Your task to perform on an android device: turn off javascript in the chrome app Image 0: 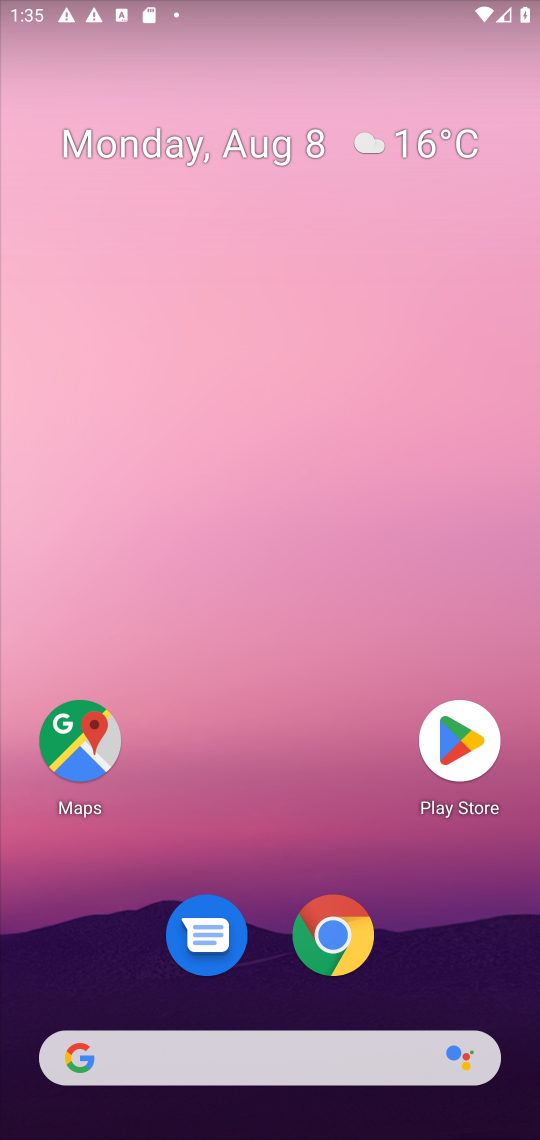
Step 0: drag from (121, 1081) to (417, 1)
Your task to perform on an android device: turn off javascript in the chrome app Image 1: 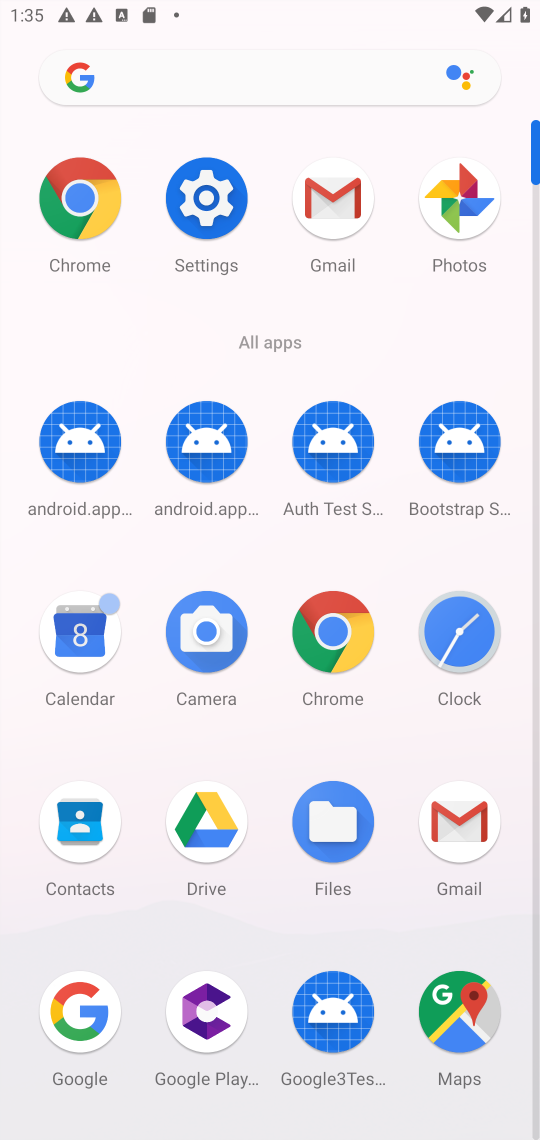
Step 1: click (320, 661)
Your task to perform on an android device: turn off javascript in the chrome app Image 2: 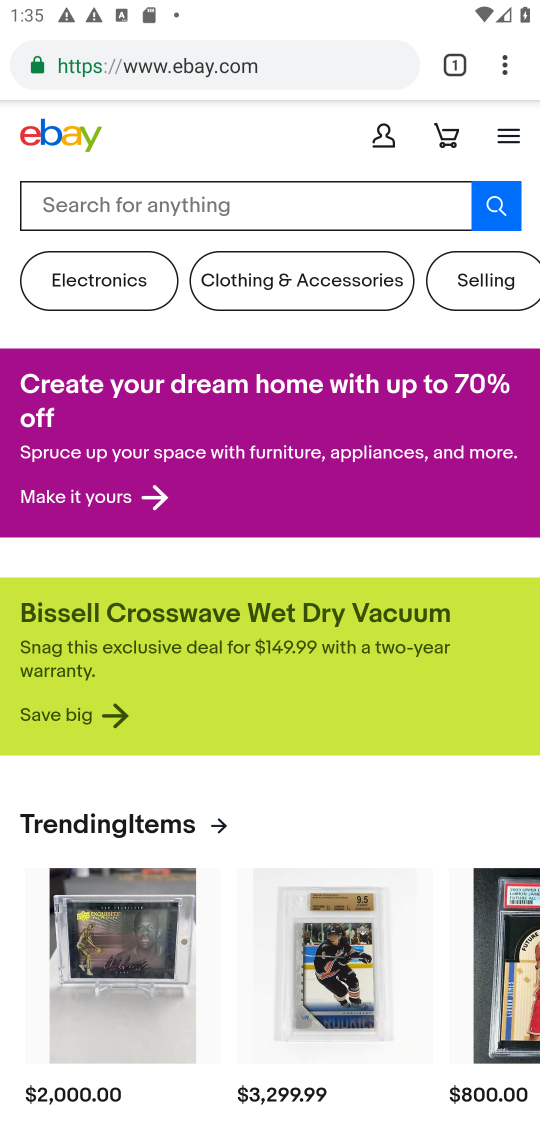
Step 2: click (510, 57)
Your task to perform on an android device: turn off javascript in the chrome app Image 3: 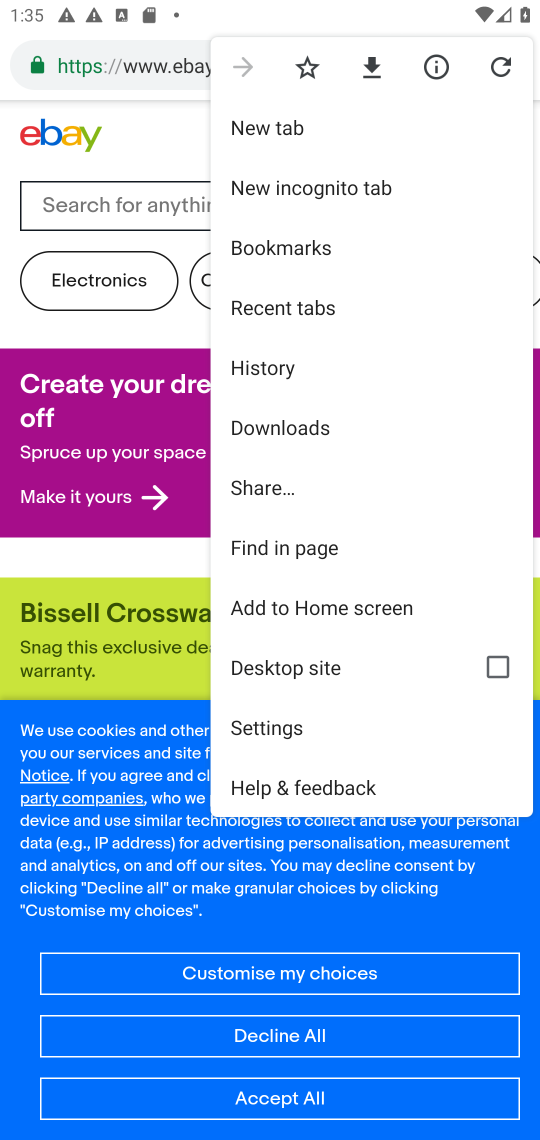
Step 3: click (424, 565)
Your task to perform on an android device: turn off javascript in the chrome app Image 4: 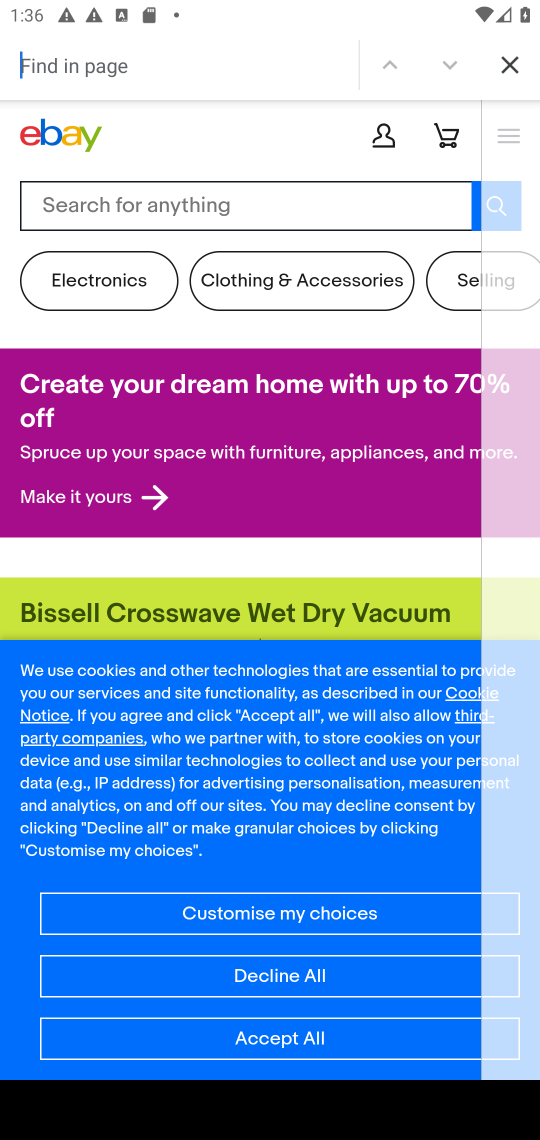
Step 4: click (509, 60)
Your task to perform on an android device: turn off javascript in the chrome app Image 5: 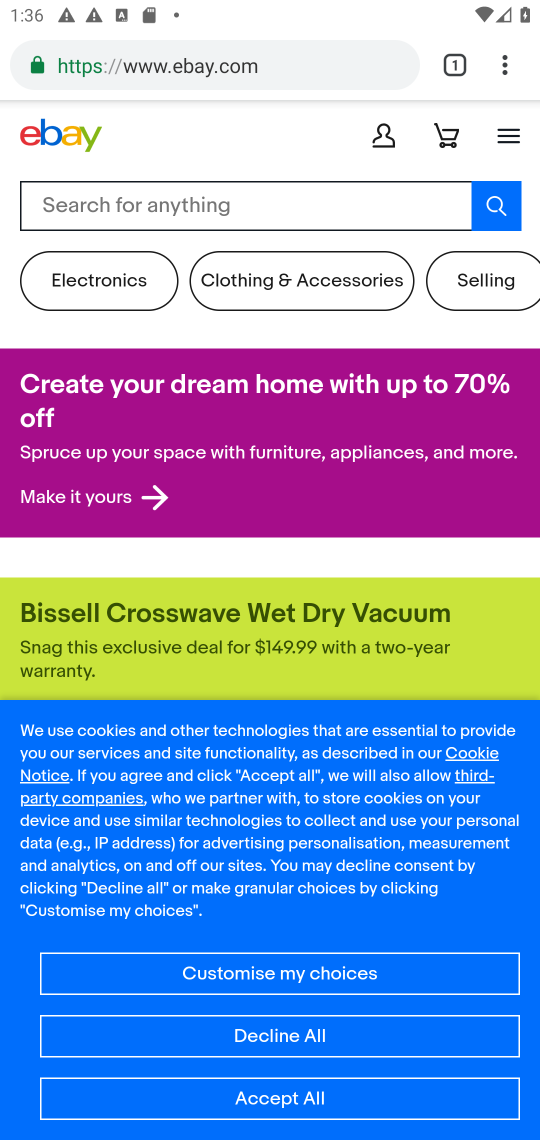
Step 5: click (510, 57)
Your task to perform on an android device: turn off javascript in the chrome app Image 6: 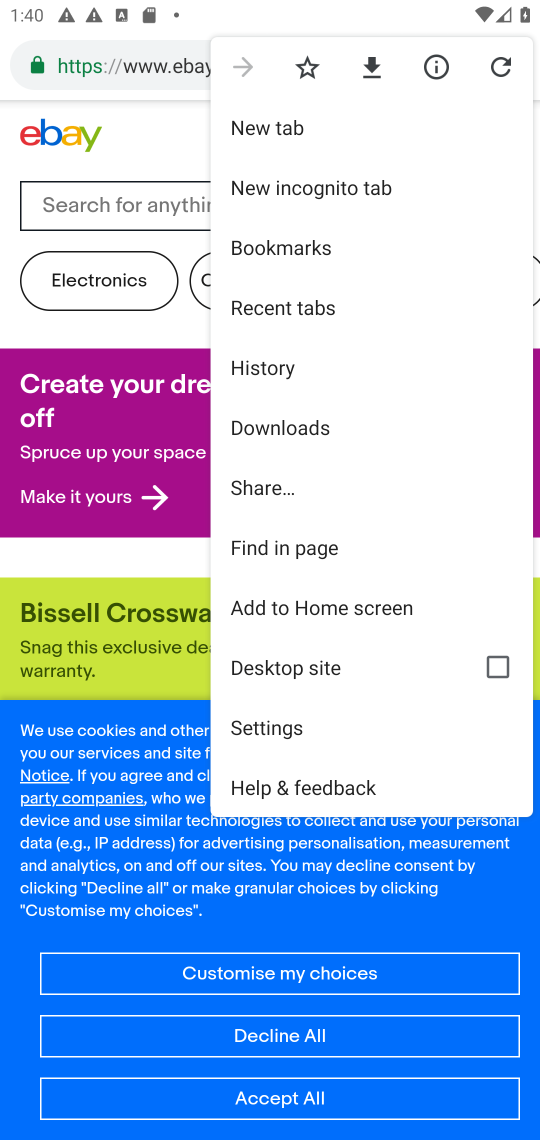
Step 6: click (303, 717)
Your task to perform on an android device: turn off javascript in the chrome app Image 7: 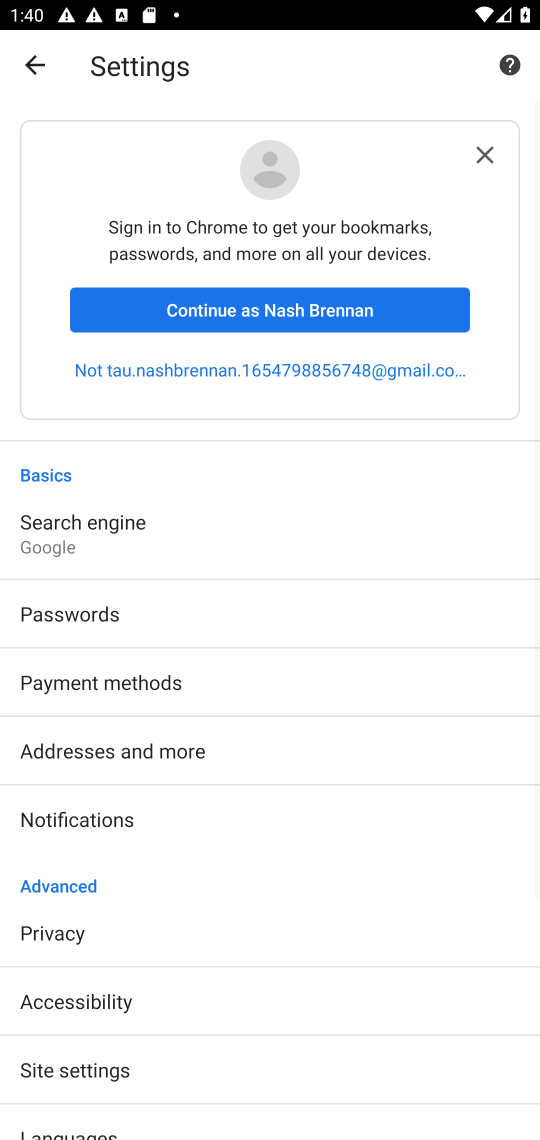
Step 7: drag from (188, 973) to (190, 398)
Your task to perform on an android device: turn off javascript in the chrome app Image 8: 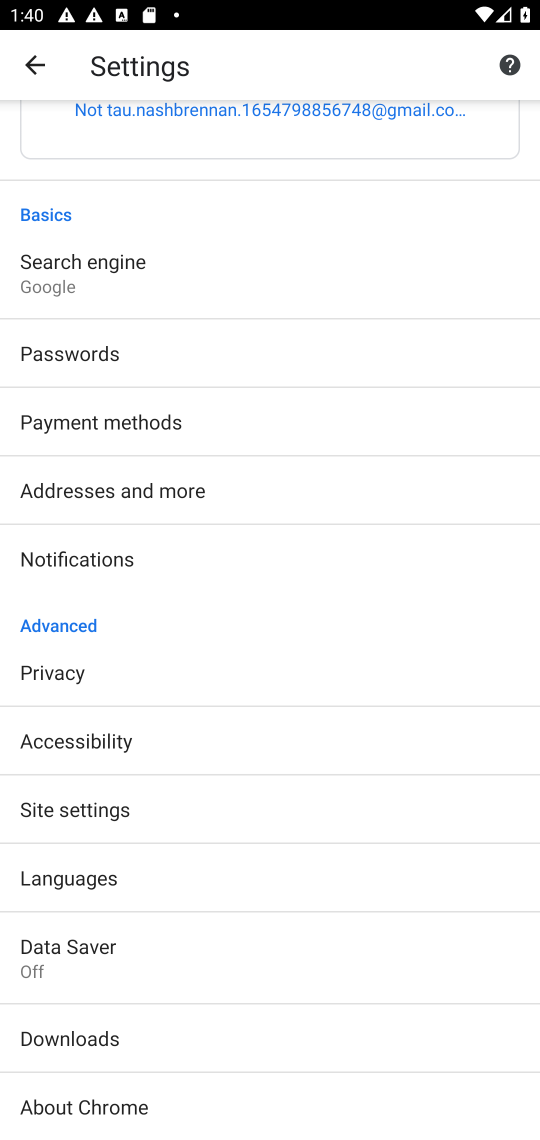
Step 8: click (109, 804)
Your task to perform on an android device: turn off javascript in the chrome app Image 9: 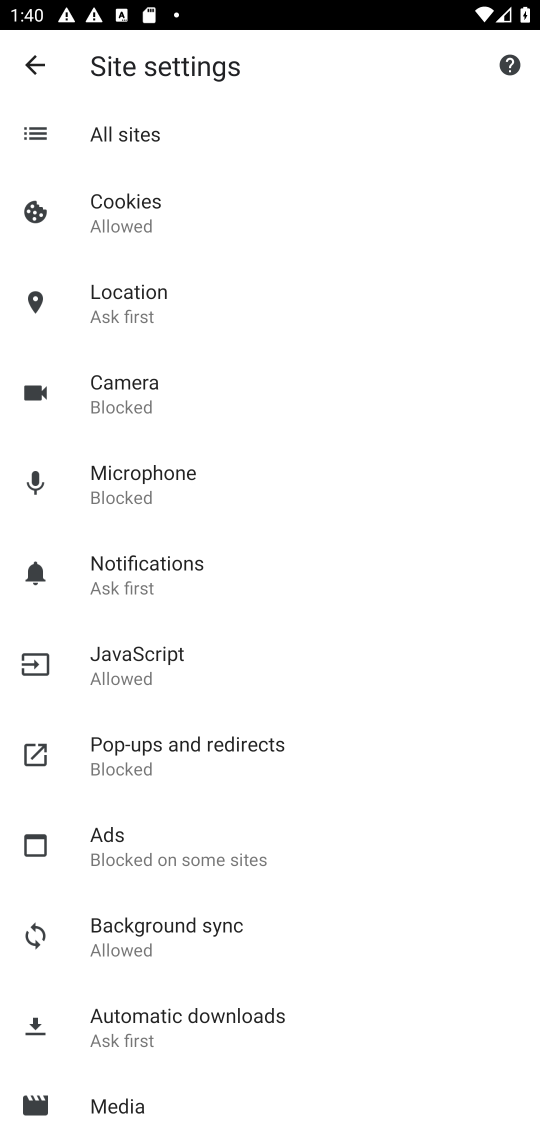
Step 9: click (151, 688)
Your task to perform on an android device: turn off javascript in the chrome app Image 10: 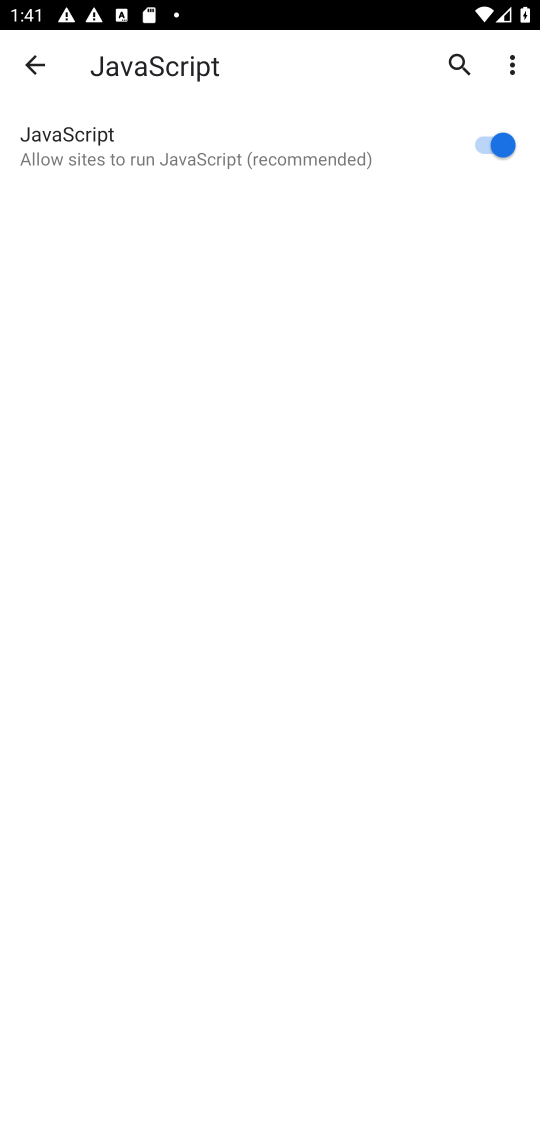
Step 10: press home button
Your task to perform on an android device: turn off javascript in the chrome app Image 11: 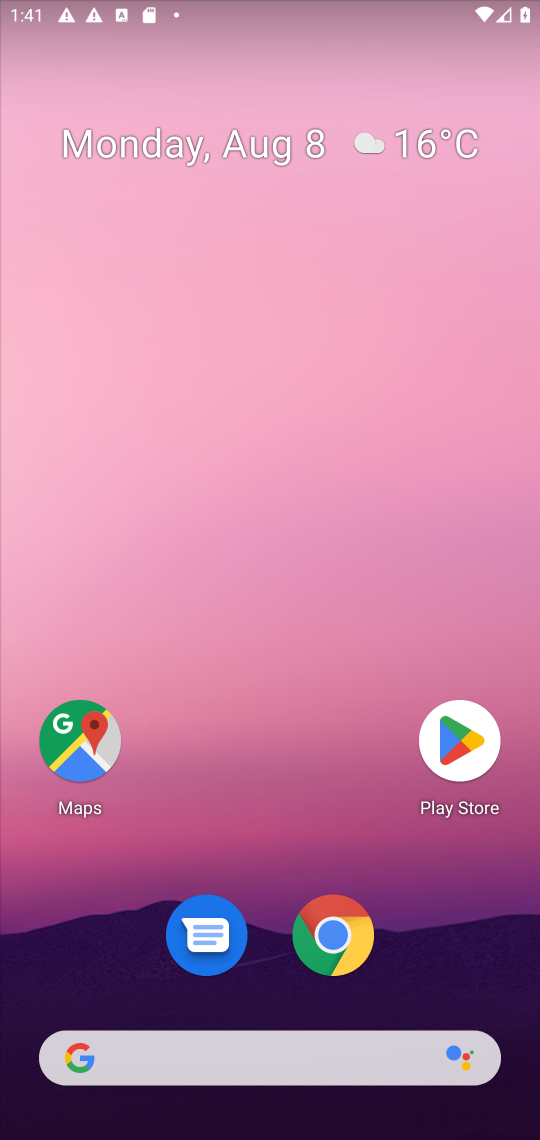
Step 11: drag from (321, 1074) to (316, 10)
Your task to perform on an android device: turn off javascript in the chrome app Image 12: 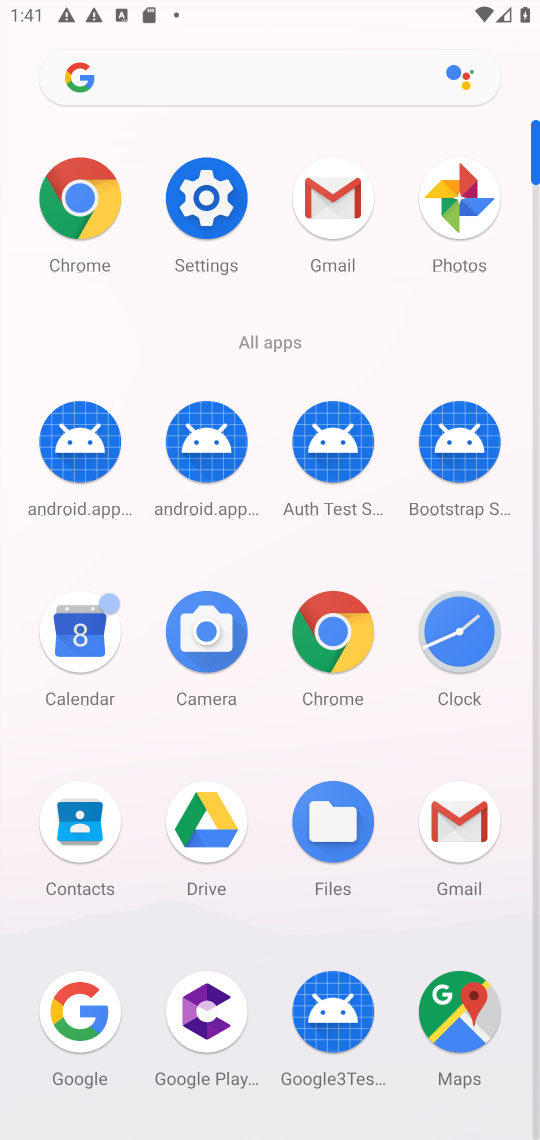
Step 12: click (331, 617)
Your task to perform on an android device: turn off javascript in the chrome app Image 13: 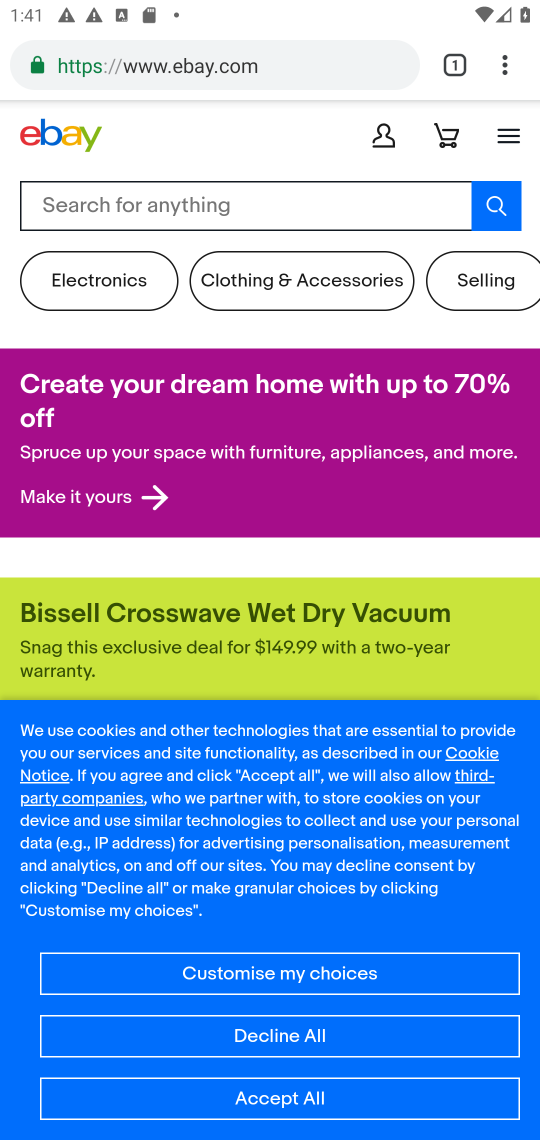
Step 13: click (497, 53)
Your task to perform on an android device: turn off javascript in the chrome app Image 14: 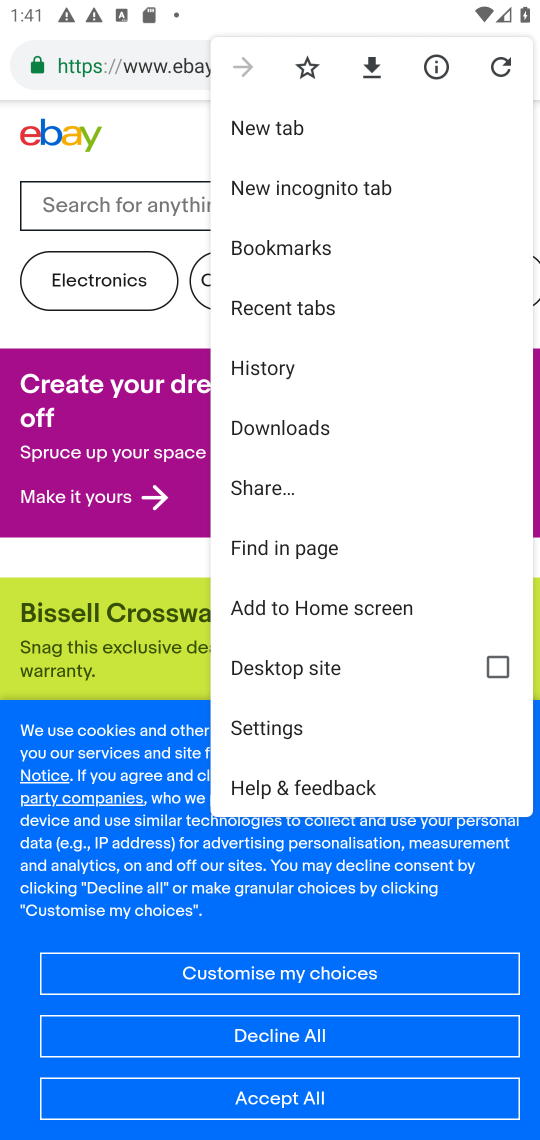
Step 14: click (315, 718)
Your task to perform on an android device: turn off javascript in the chrome app Image 15: 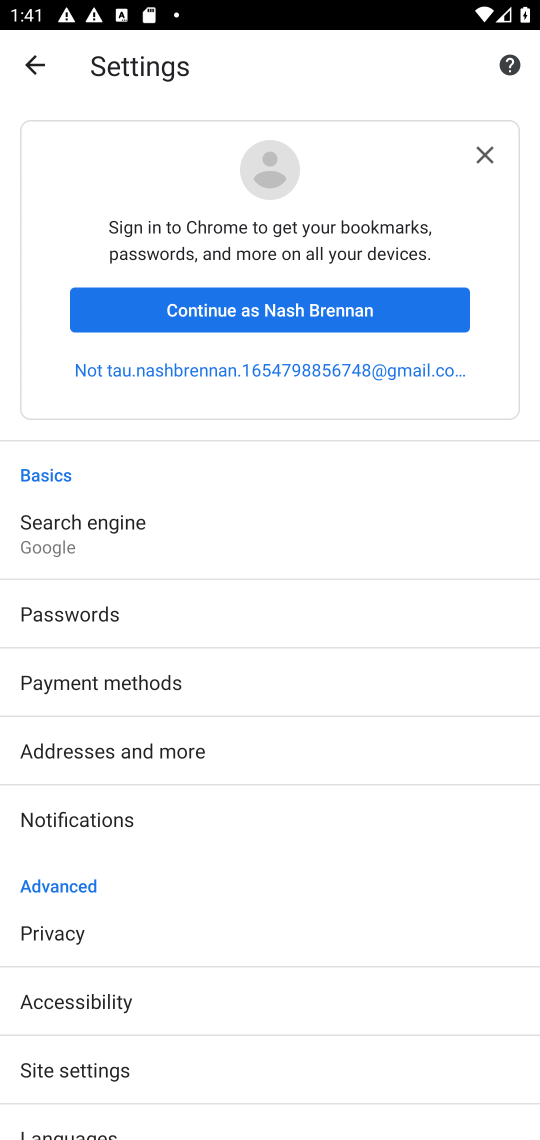
Step 15: click (133, 1066)
Your task to perform on an android device: turn off javascript in the chrome app Image 16: 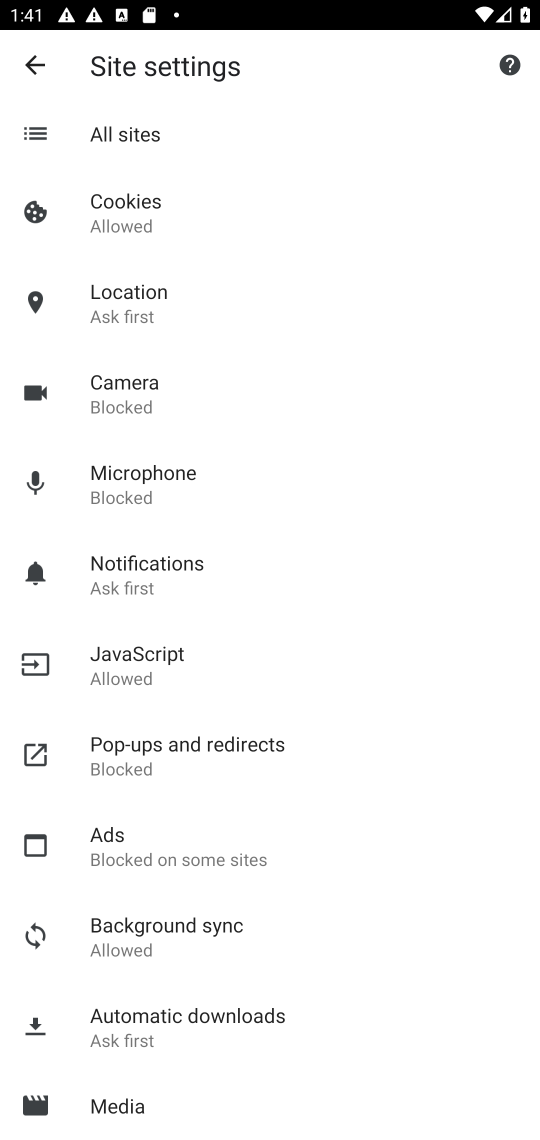
Step 16: click (160, 673)
Your task to perform on an android device: turn off javascript in the chrome app Image 17: 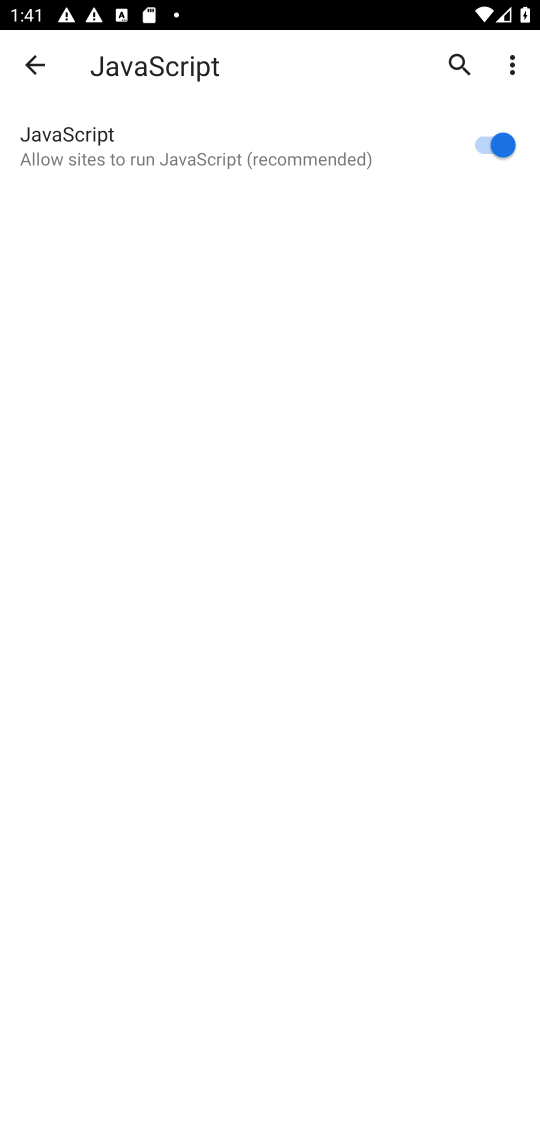
Step 17: click (482, 144)
Your task to perform on an android device: turn off javascript in the chrome app Image 18: 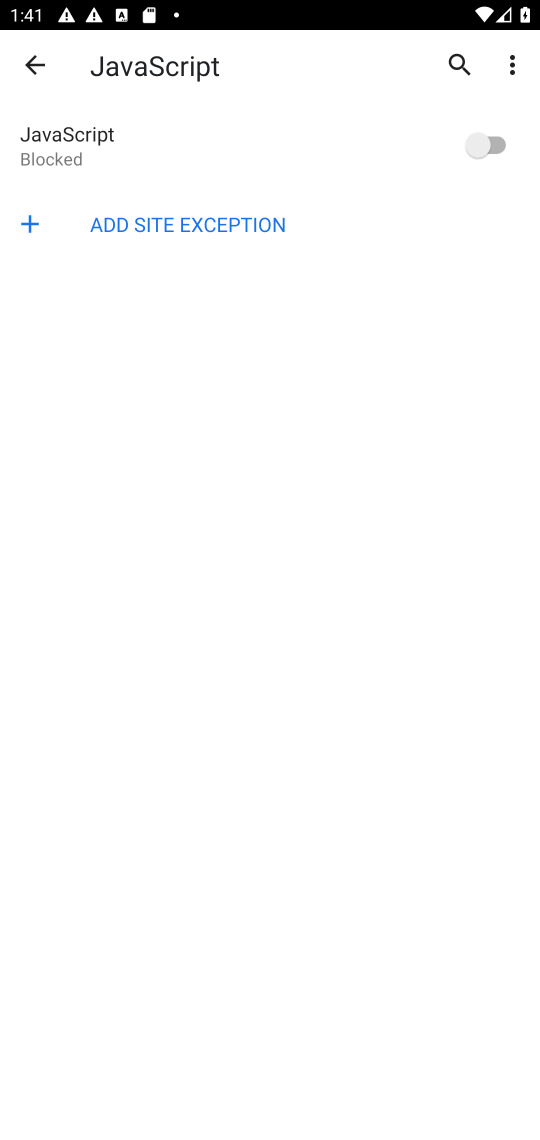
Step 18: task complete